Your task to perform on an android device: Go to Amazon Image 0: 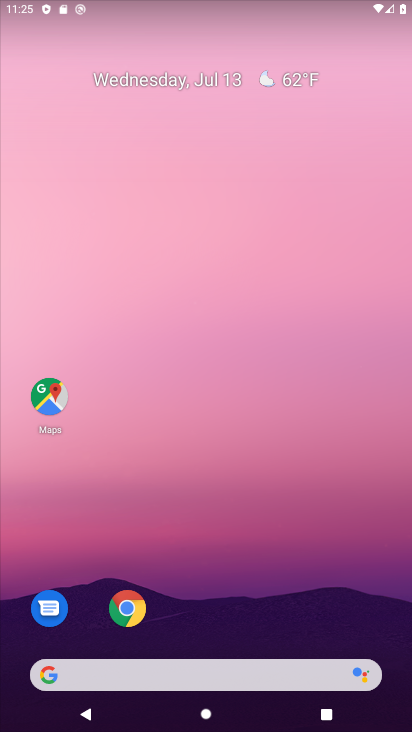
Step 0: click (254, 216)
Your task to perform on an android device: Go to Amazon Image 1: 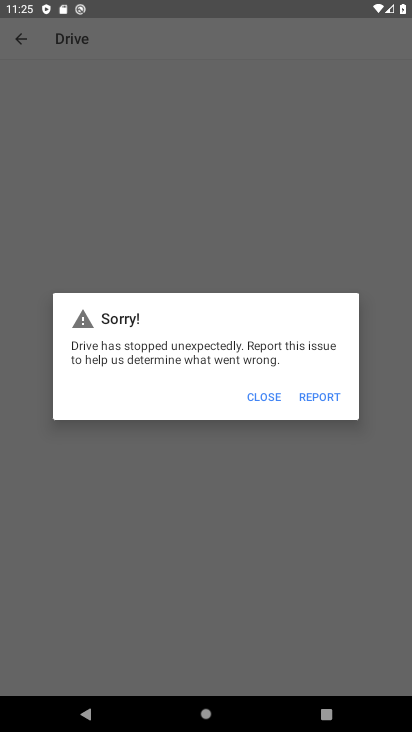
Step 1: click (268, 391)
Your task to perform on an android device: Go to Amazon Image 2: 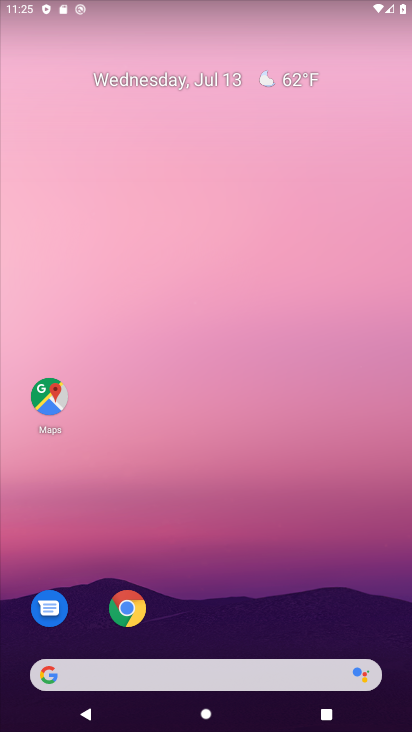
Step 2: click (127, 609)
Your task to perform on an android device: Go to Amazon Image 3: 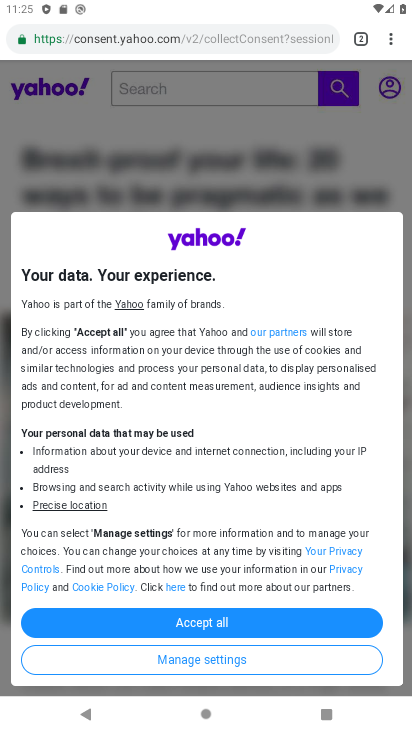
Step 3: click (393, 40)
Your task to perform on an android device: Go to Amazon Image 4: 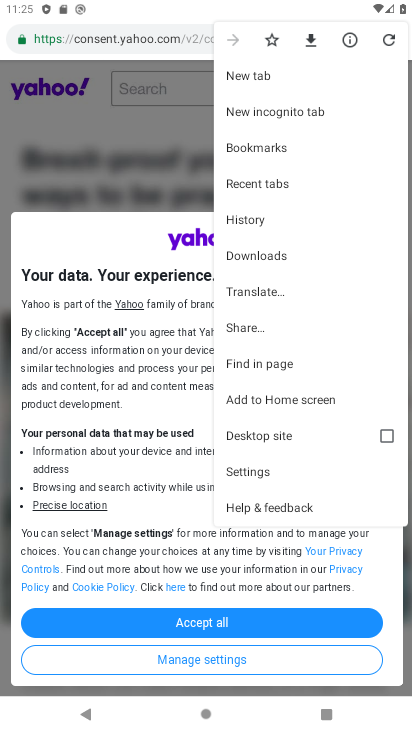
Step 4: click (251, 78)
Your task to perform on an android device: Go to Amazon Image 5: 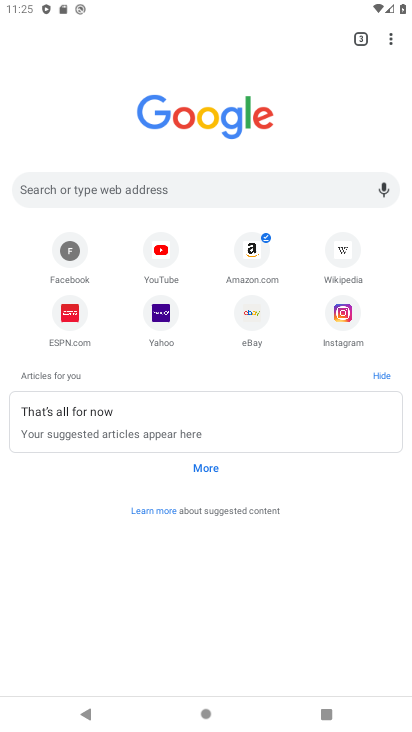
Step 5: click (243, 258)
Your task to perform on an android device: Go to Amazon Image 6: 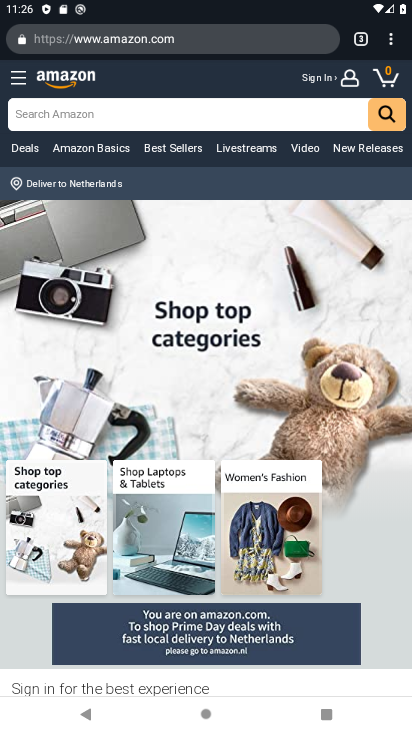
Step 6: task complete